Your task to perform on an android device: turn on improve location accuracy Image 0: 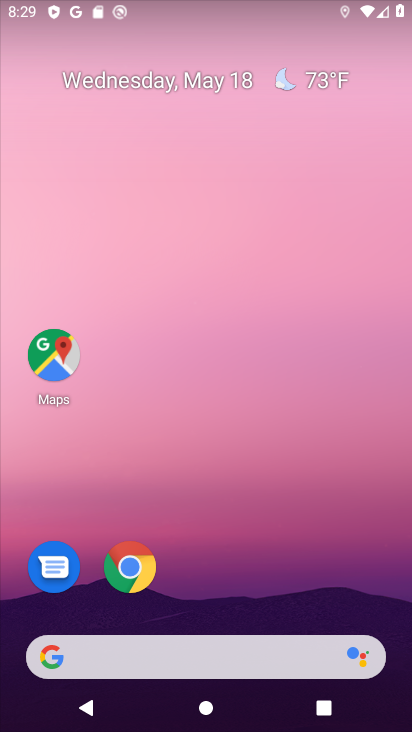
Step 0: drag from (319, 534) to (233, 39)
Your task to perform on an android device: turn on improve location accuracy Image 1: 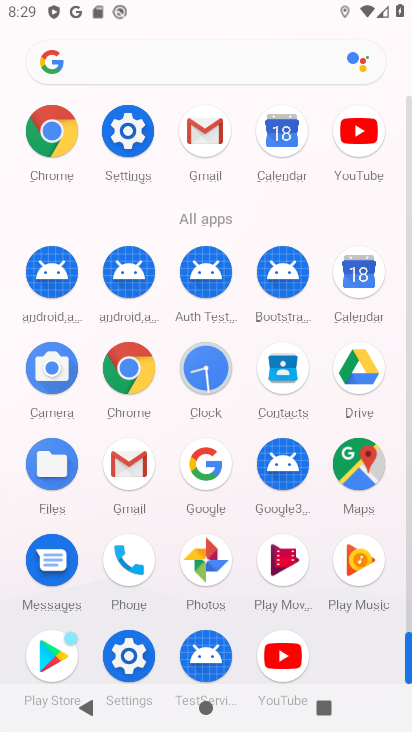
Step 1: drag from (15, 575) to (12, 265)
Your task to perform on an android device: turn on improve location accuracy Image 2: 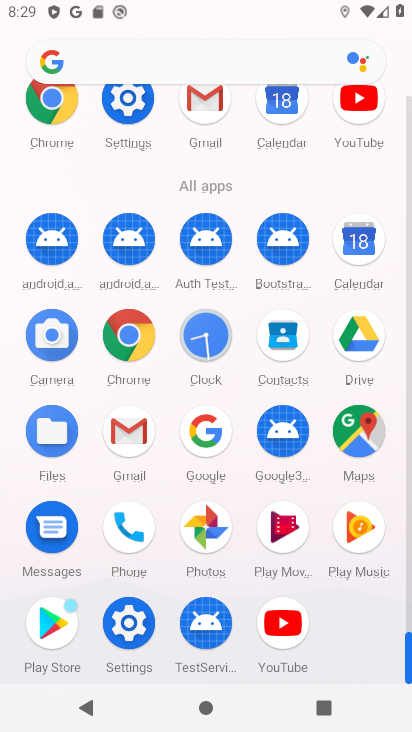
Step 2: click (125, 617)
Your task to perform on an android device: turn on improve location accuracy Image 3: 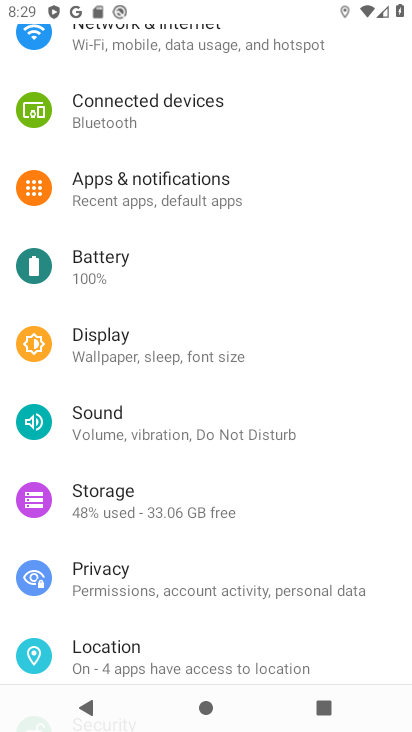
Step 3: click (143, 641)
Your task to perform on an android device: turn on improve location accuracy Image 4: 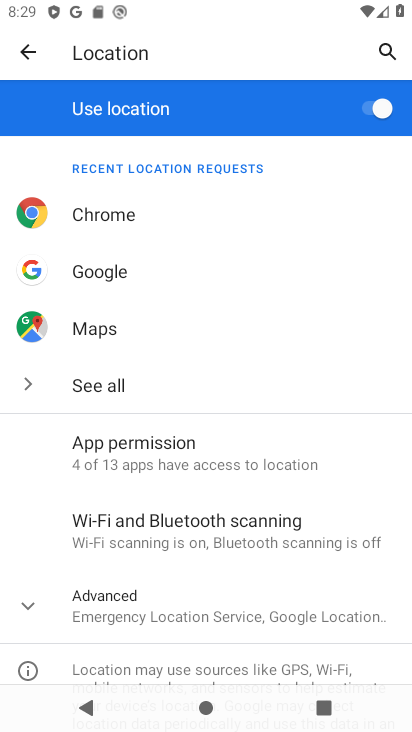
Step 4: click (97, 592)
Your task to perform on an android device: turn on improve location accuracy Image 5: 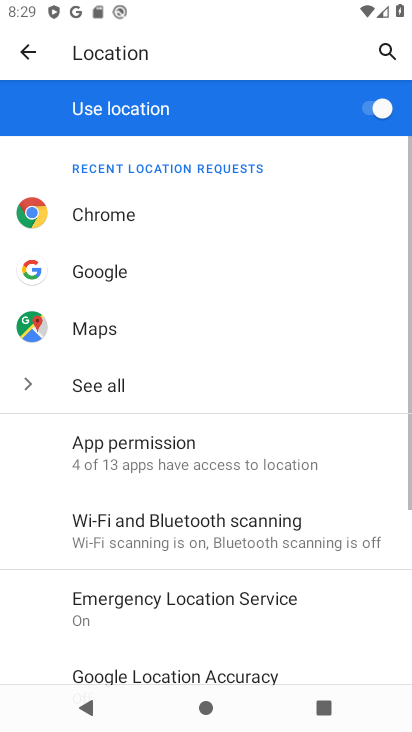
Step 5: drag from (262, 631) to (299, 297)
Your task to perform on an android device: turn on improve location accuracy Image 6: 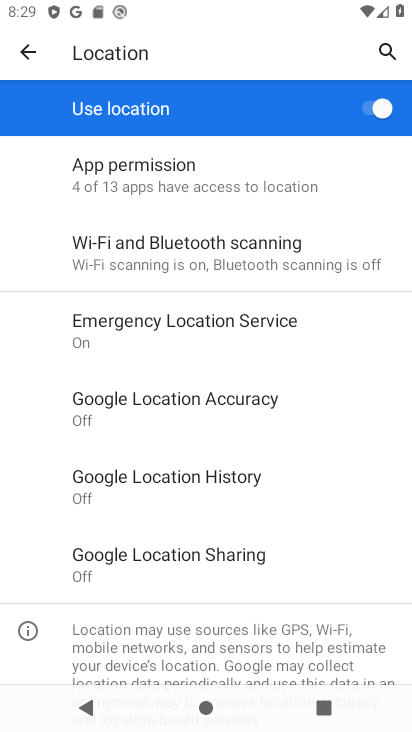
Step 6: click (245, 392)
Your task to perform on an android device: turn on improve location accuracy Image 7: 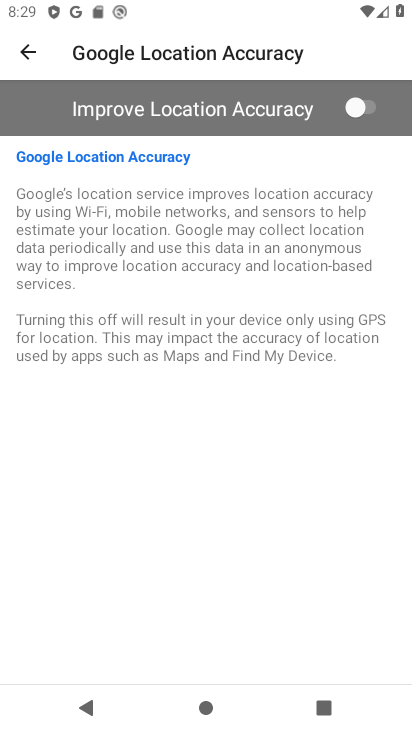
Step 7: click (360, 98)
Your task to perform on an android device: turn on improve location accuracy Image 8: 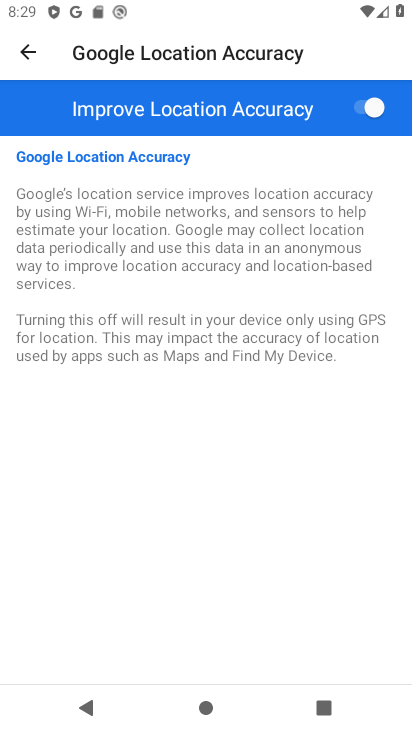
Step 8: task complete